Your task to perform on an android device: toggle airplane mode Image 0: 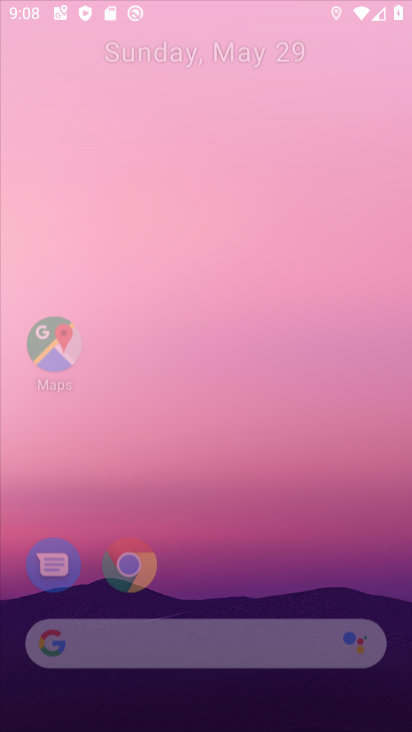
Step 0: click (144, 12)
Your task to perform on an android device: toggle airplane mode Image 1: 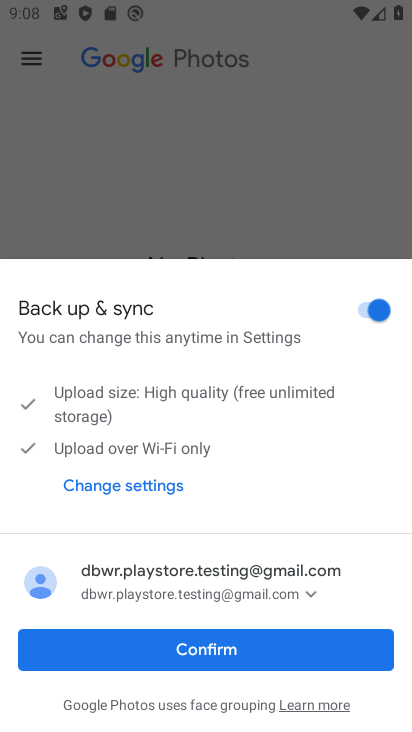
Step 1: press home button
Your task to perform on an android device: toggle airplane mode Image 2: 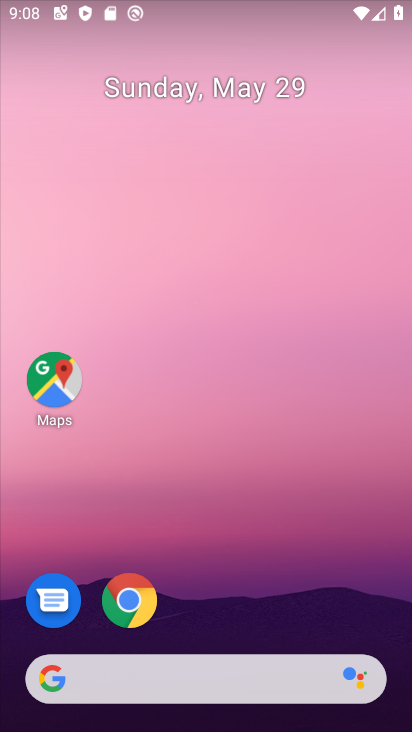
Step 2: drag from (230, 723) to (142, 110)
Your task to perform on an android device: toggle airplane mode Image 3: 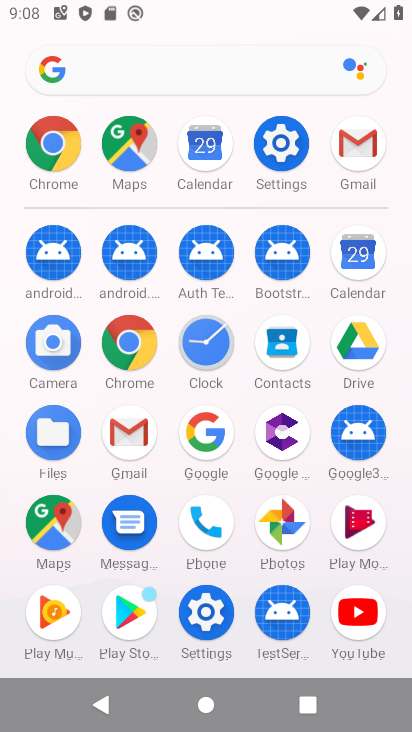
Step 3: click (273, 145)
Your task to perform on an android device: toggle airplane mode Image 4: 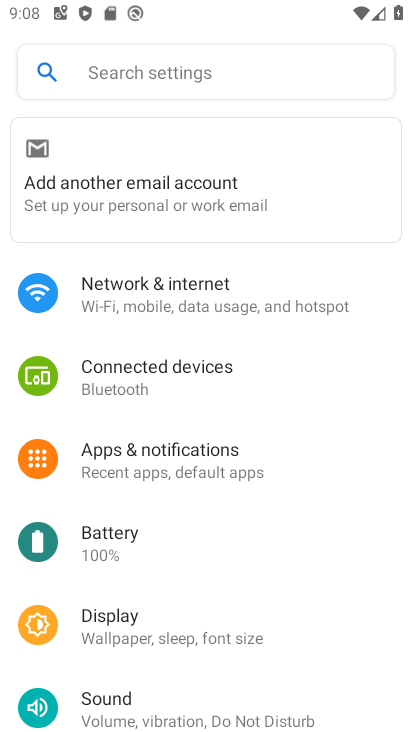
Step 4: click (144, 294)
Your task to perform on an android device: toggle airplane mode Image 5: 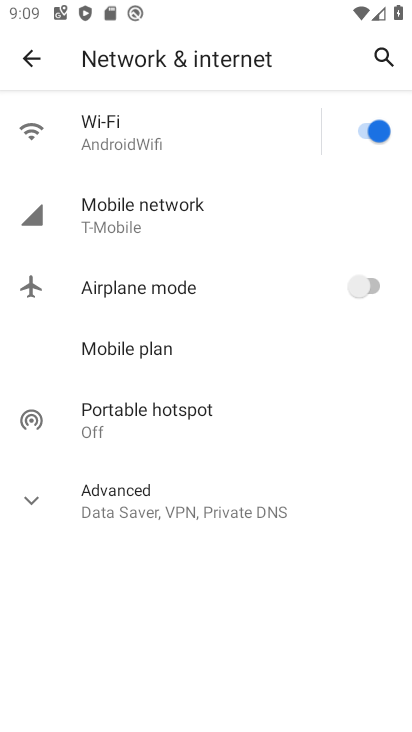
Step 5: click (377, 282)
Your task to perform on an android device: toggle airplane mode Image 6: 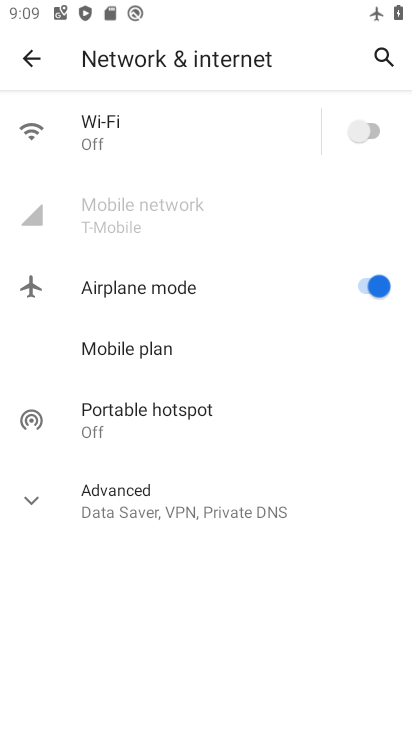
Step 6: task complete